Your task to perform on an android device: open app "Walmart Shopping & Grocery" (install if not already installed) Image 0: 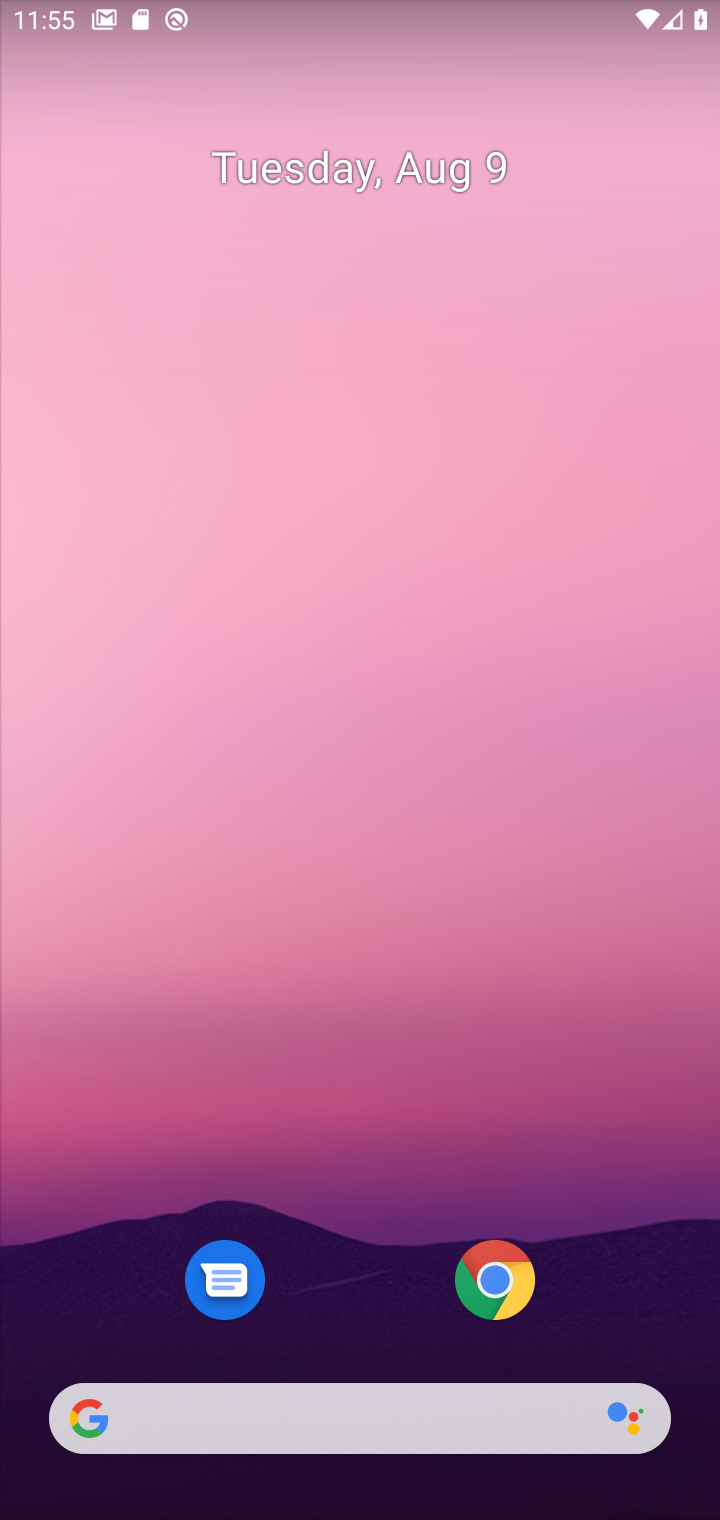
Step 0: drag from (362, 1203) to (383, 24)
Your task to perform on an android device: open app "Walmart Shopping & Grocery" (install if not already installed) Image 1: 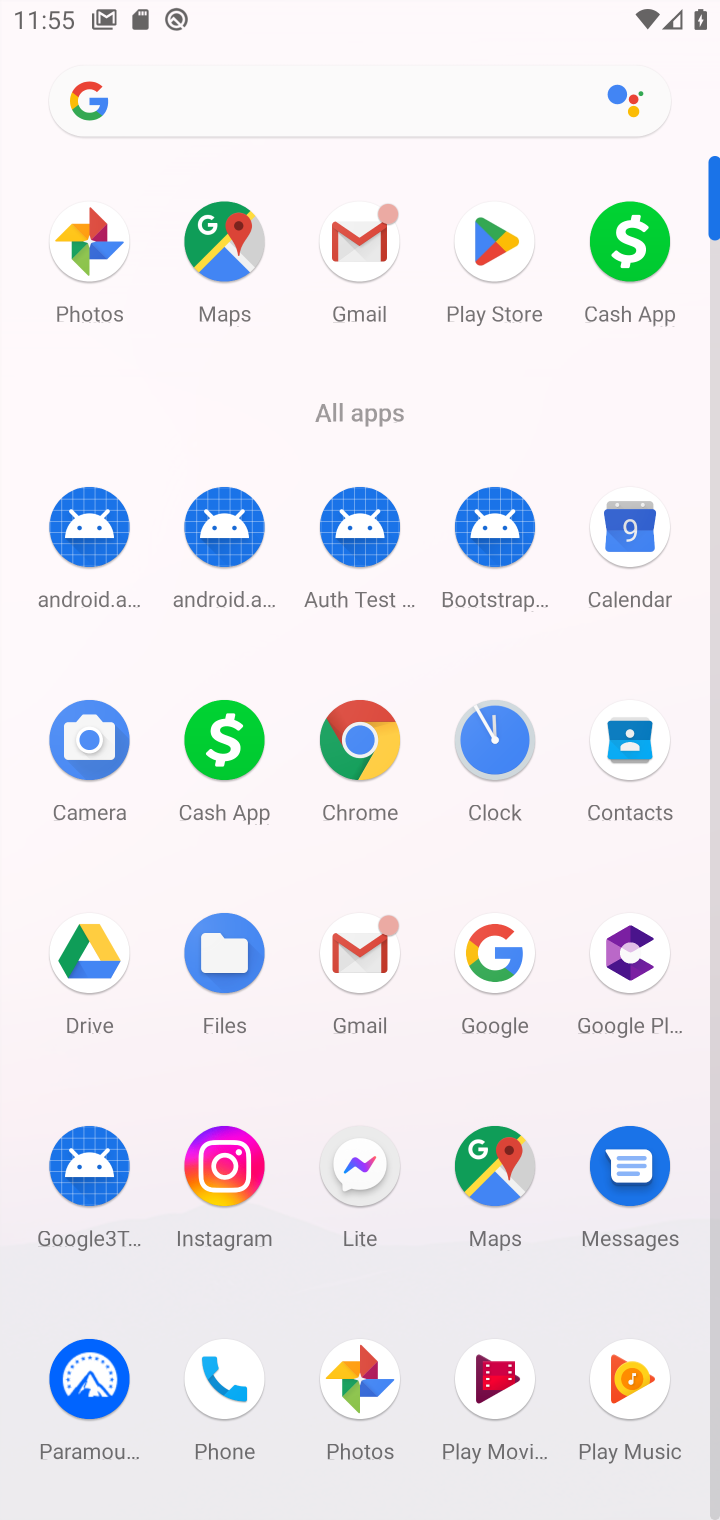
Step 1: click (487, 247)
Your task to perform on an android device: open app "Walmart Shopping & Grocery" (install if not already installed) Image 2: 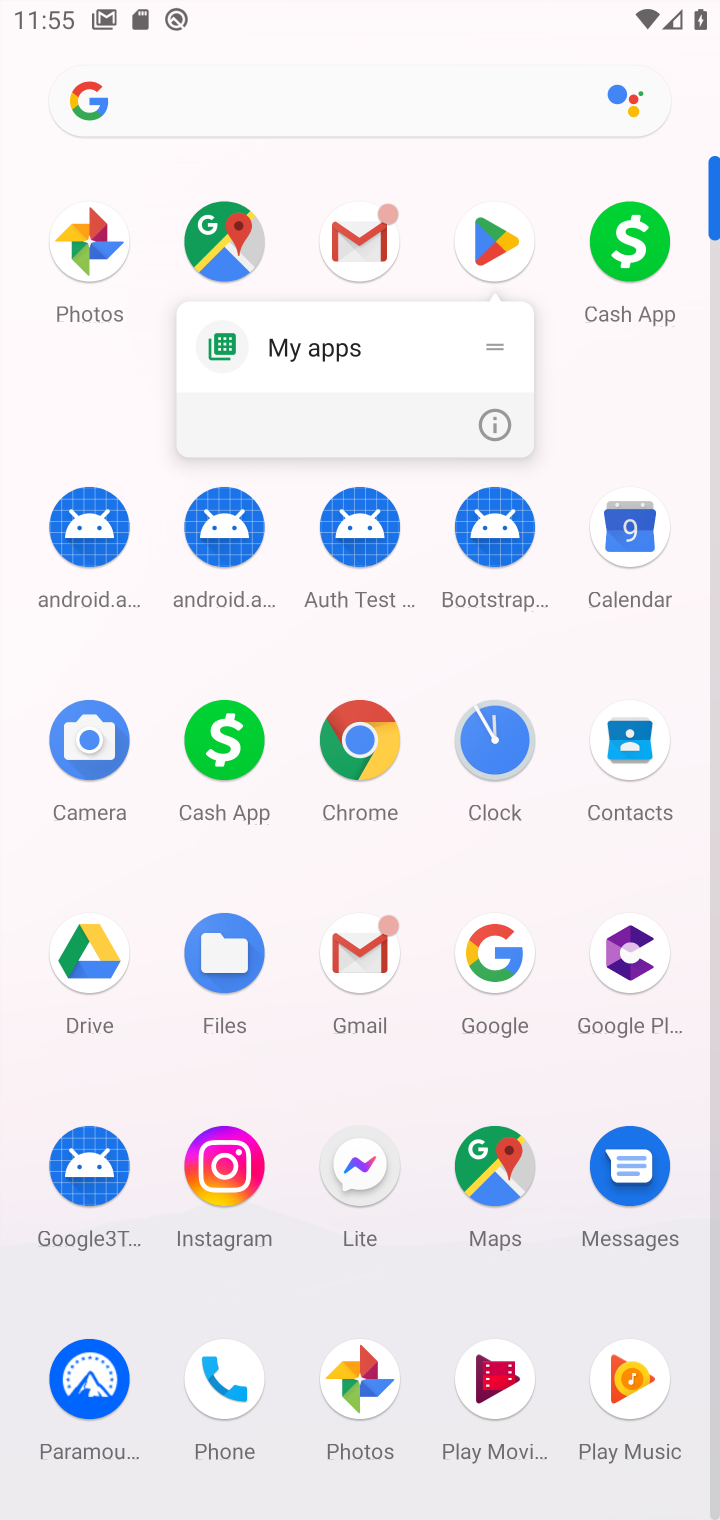
Step 2: click (493, 262)
Your task to perform on an android device: open app "Walmart Shopping & Grocery" (install if not already installed) Image 3: 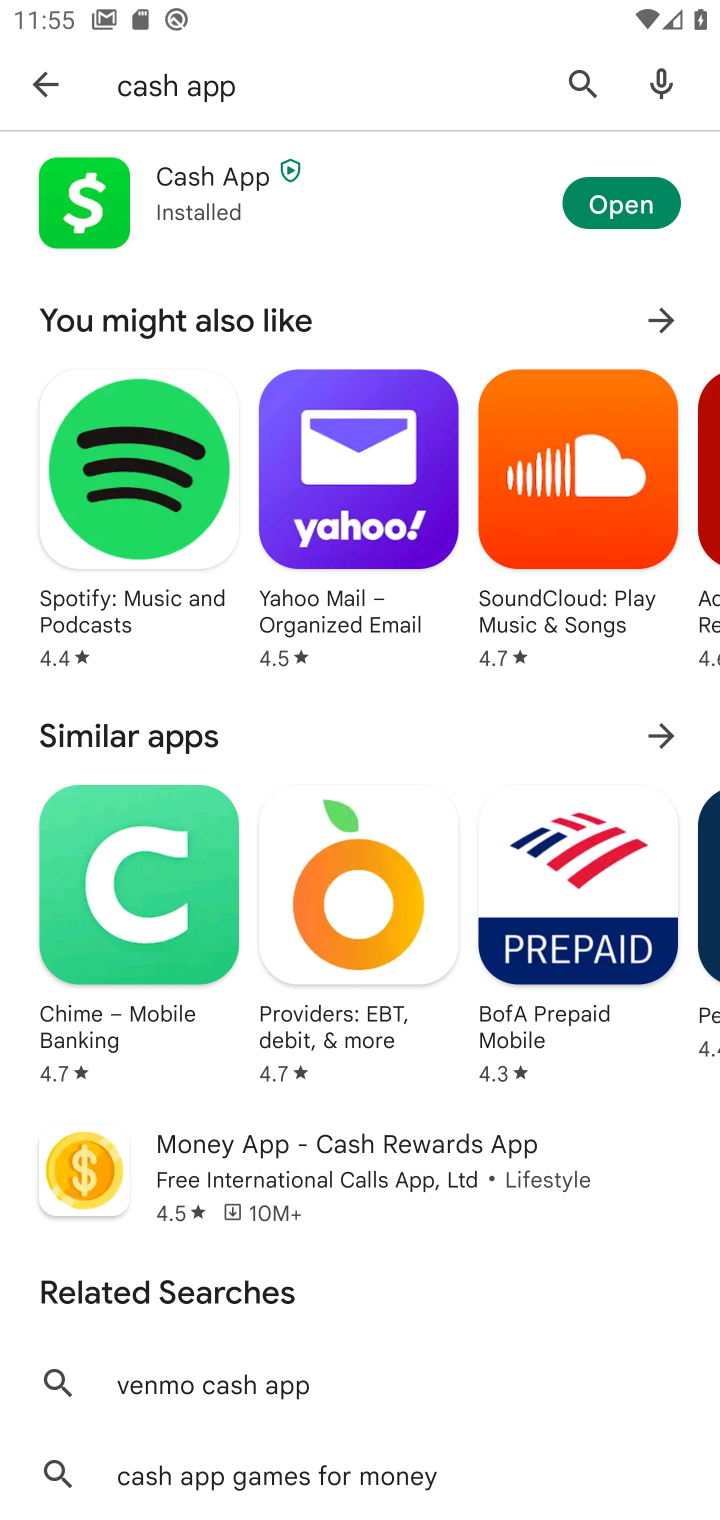
Step 3: click (445, 80)
Your task to perform on an android device: open app "Walmart Shopping & Grocery" (install if not already installed) Image 4: 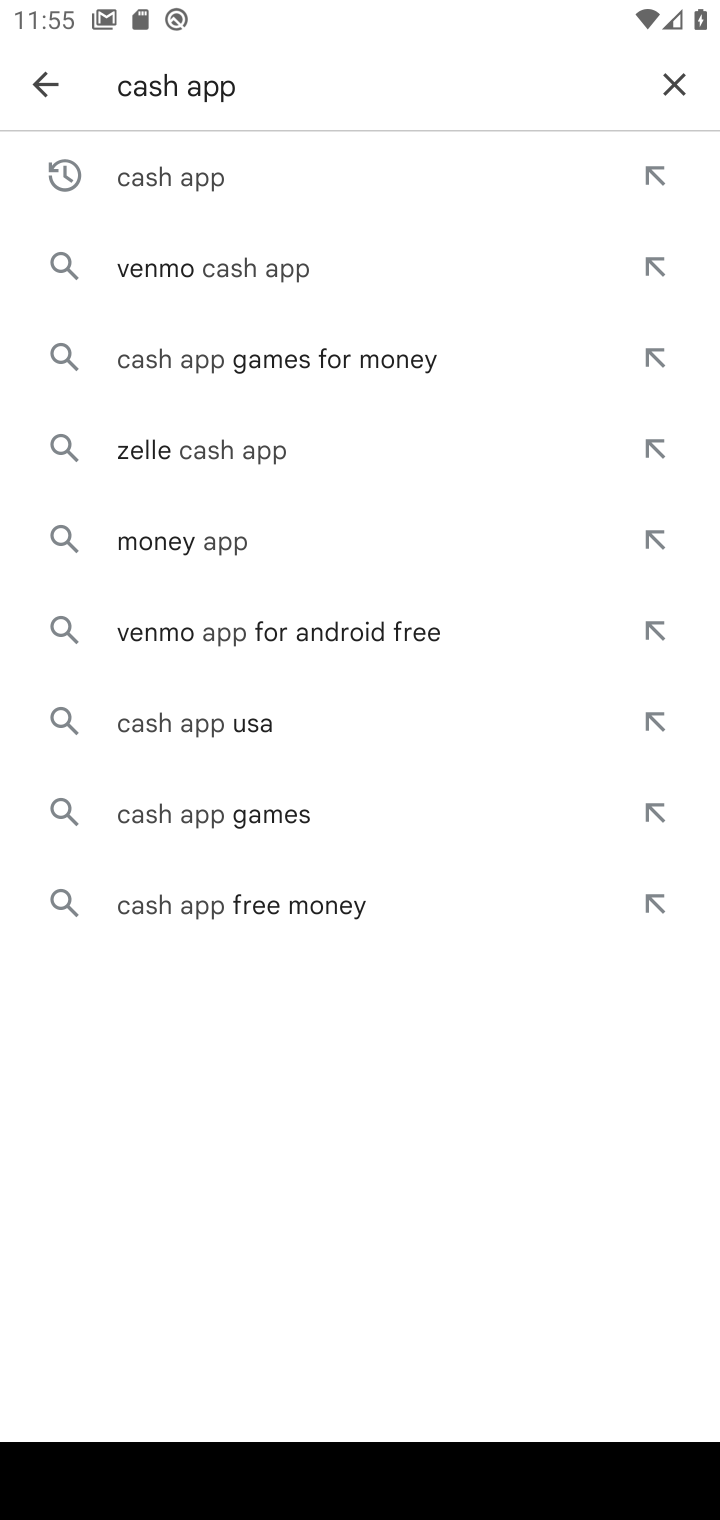
Step 4: click (667, 76)
Your task to perform on an android device: open app "Walmart Shopping & Grocery" (install if not already installed) Image 5: 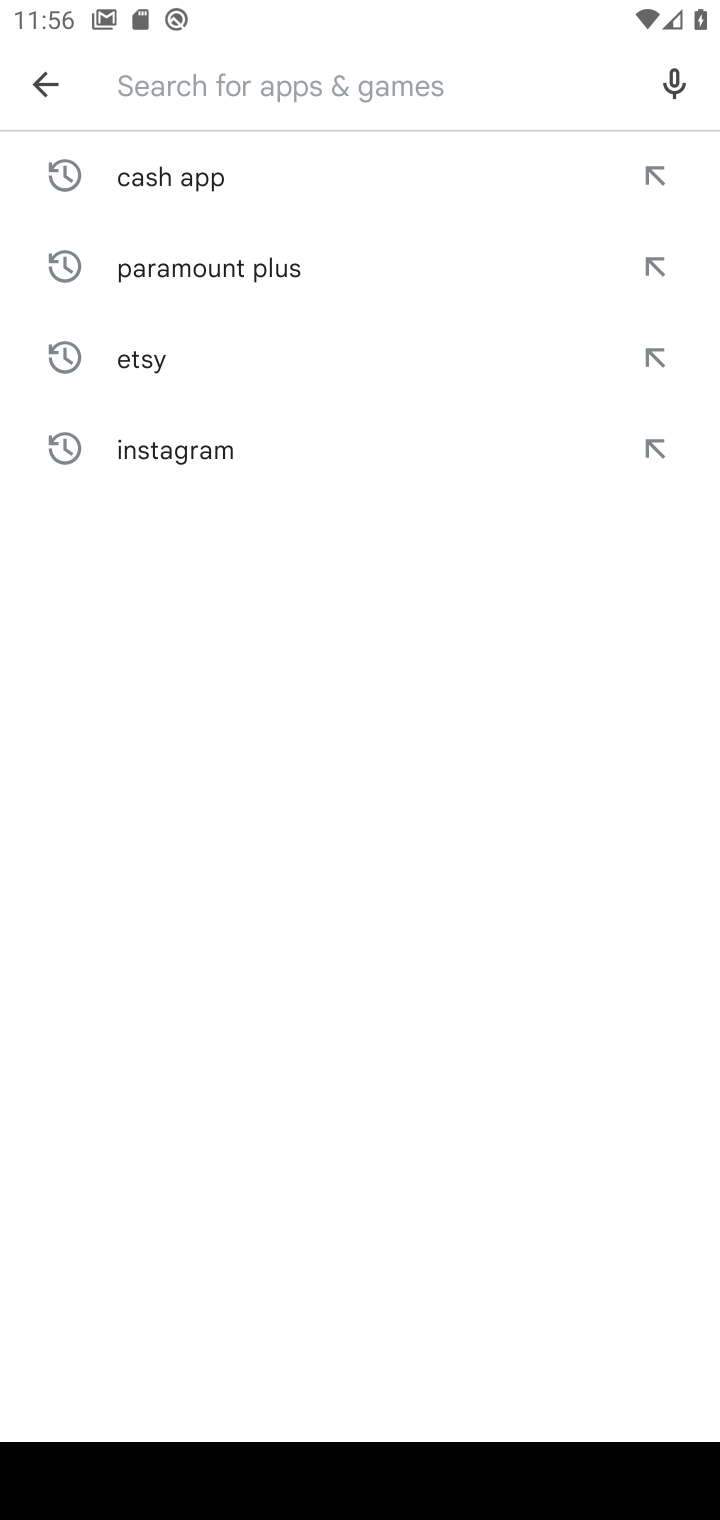
Step 5: click (204, 103)
Your task to perform on an android device: open app "Walmart Shopping & Grocery" (install if not already installed) Image 6: 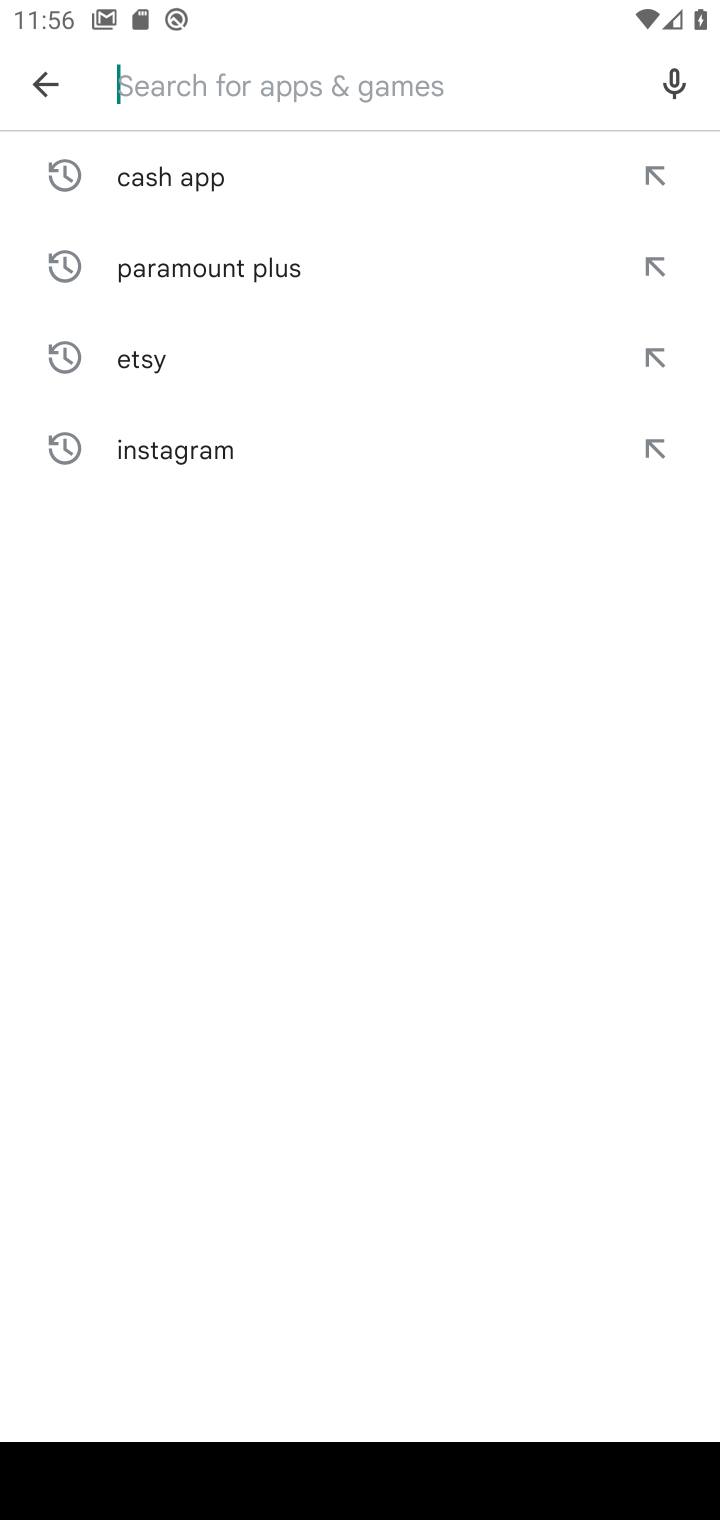
Step 6: type "Walmart Shopping & Grocery"
Your task to perform on an android device: open app "Walmart Shopping & Grocery" (install if not already installed) Image 7: 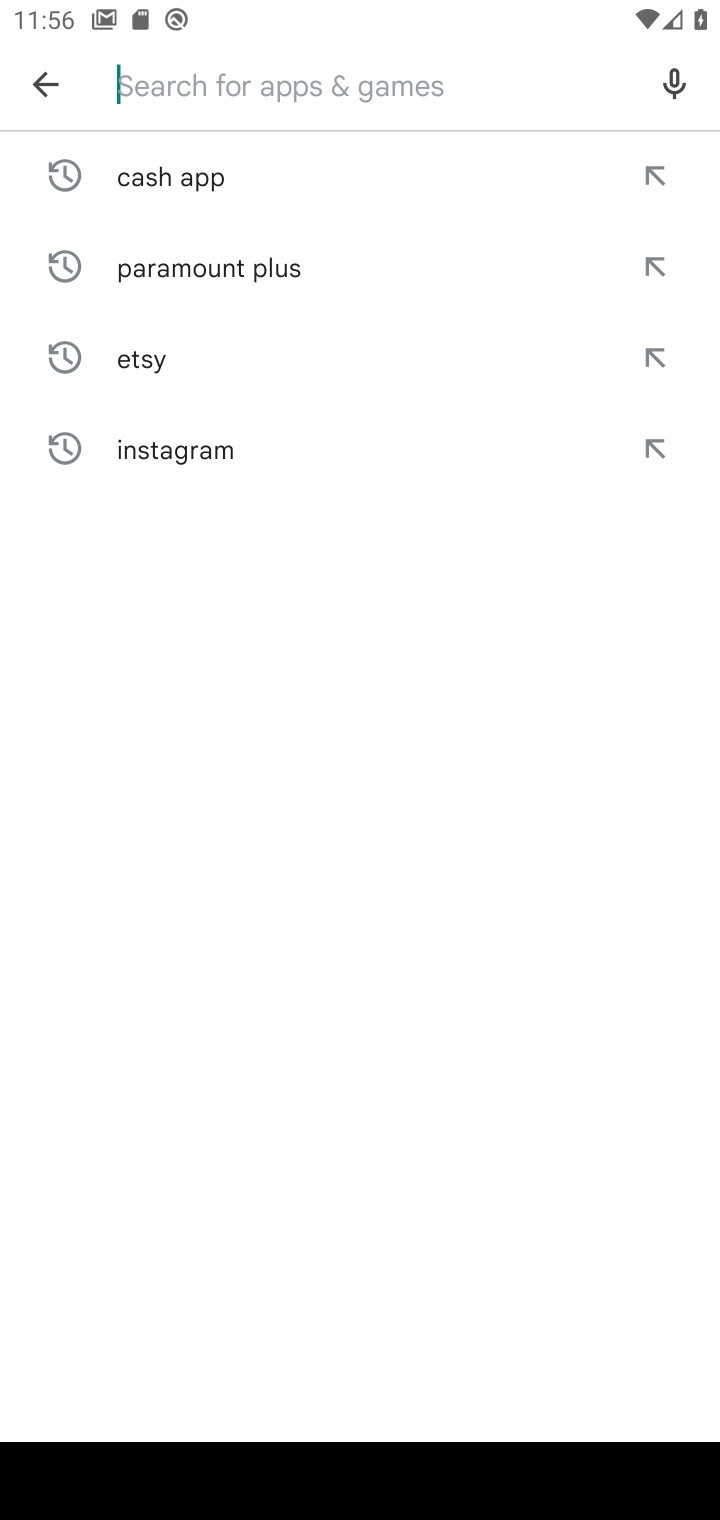
Step 7: click (357, 730)
Your task to perform on an android device: open app "Walmart Shopping & Grocery" (install if not already installed) Image 8: 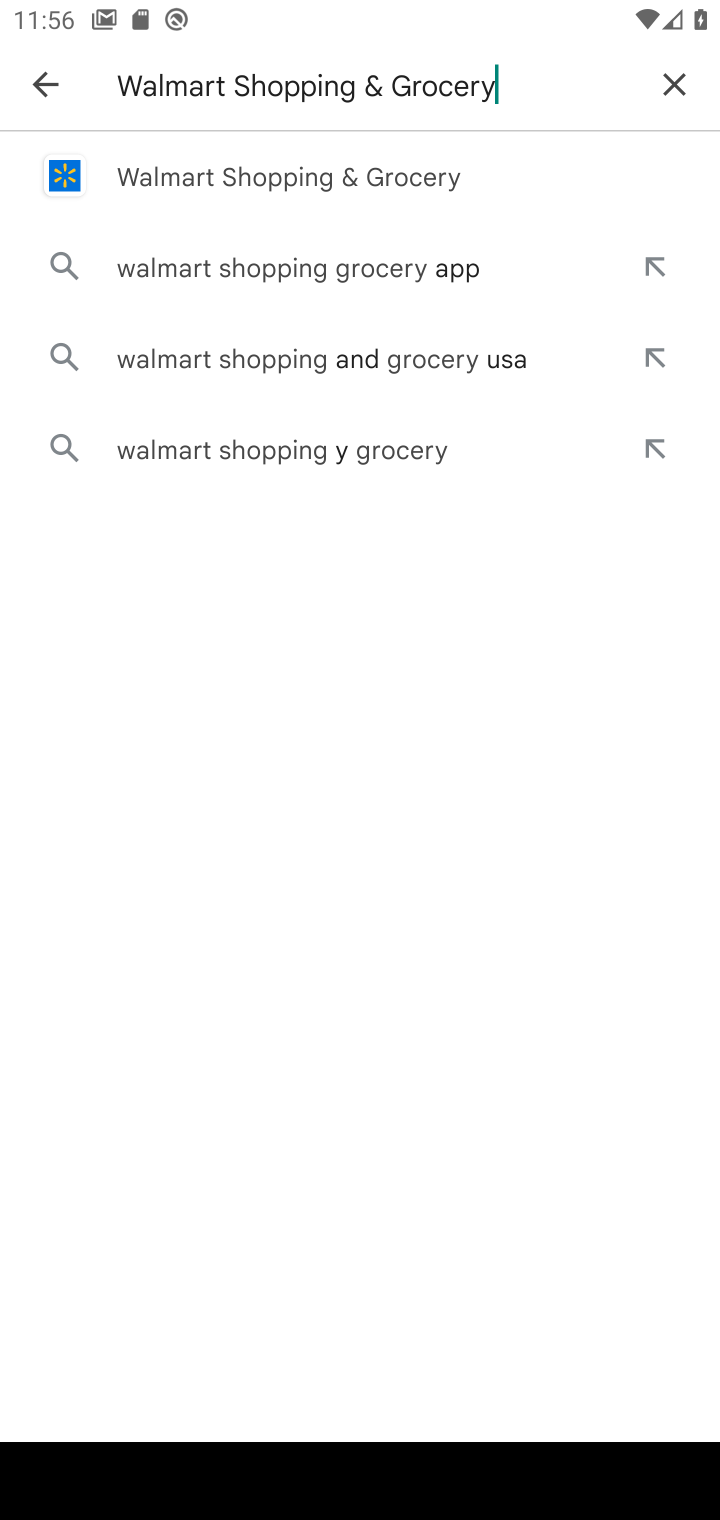
Step 8: click (298, 170)
Your task to perform on an android device: open app "Walmart Shopping & Grocery" (install if not already installed) Image 9: 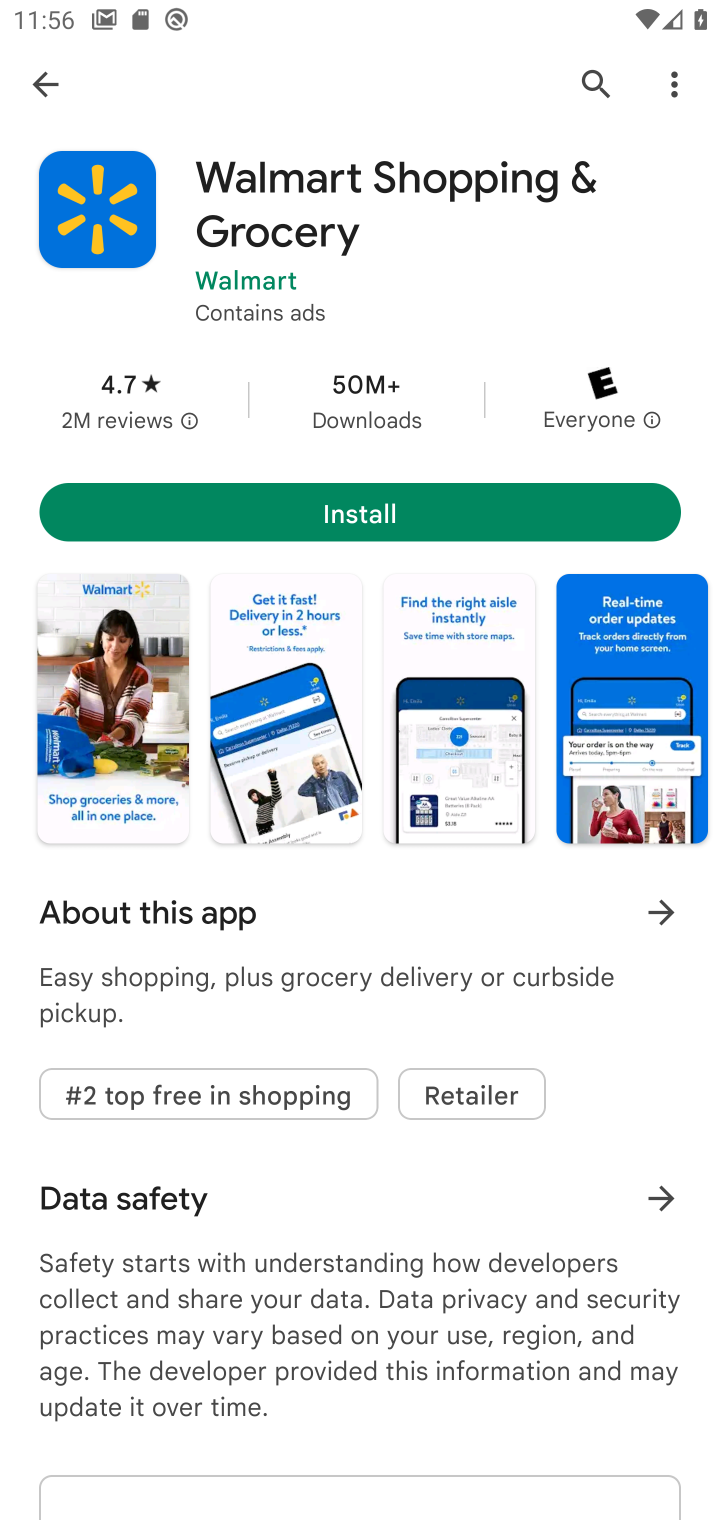
Step 9: click (368, 530)
Your task to perform on an android device: open app "Walmart Shopping & Grocery" (install if not already installed) Image 10: 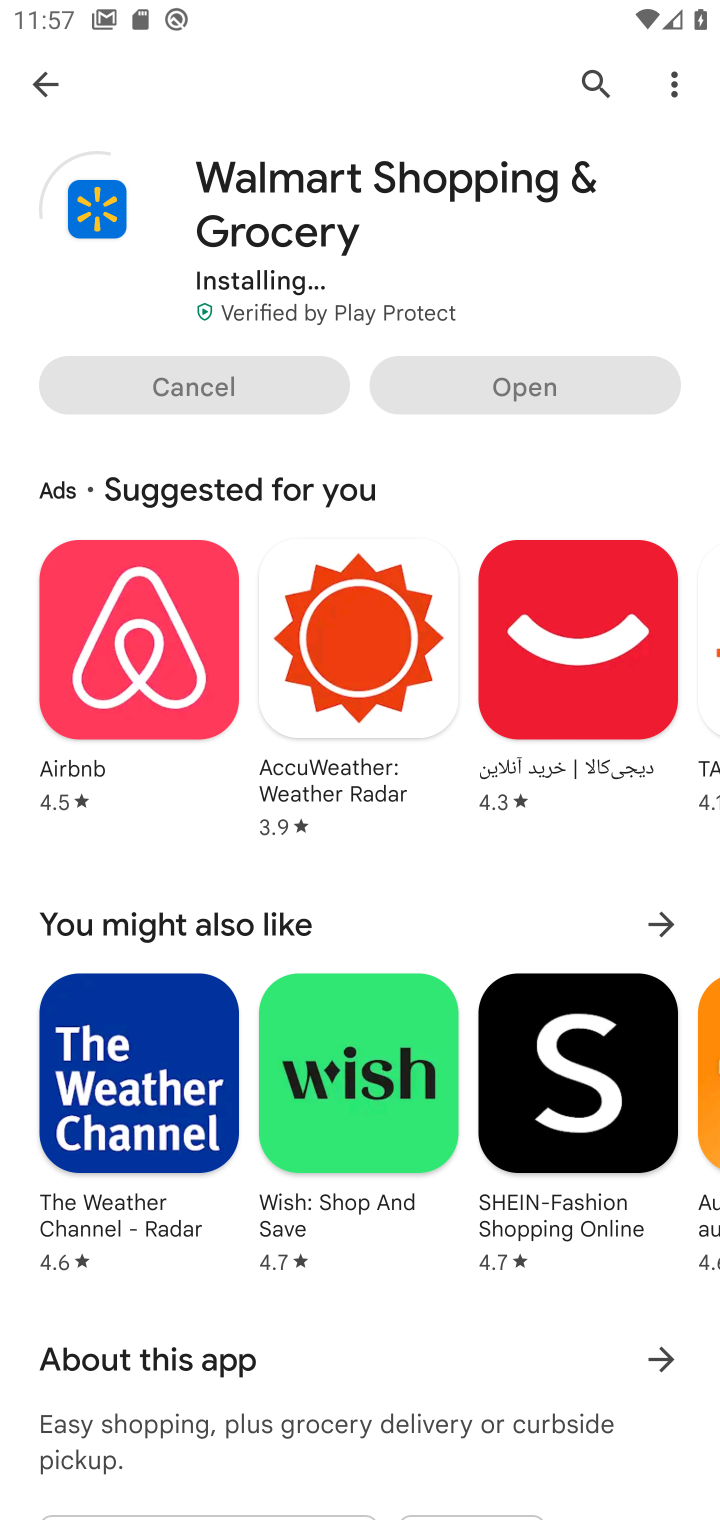
Step 10: press back button
Your task to perform on an android device: open app "Walmart Shopping & Grocery" (install if not already installed) Image 11: 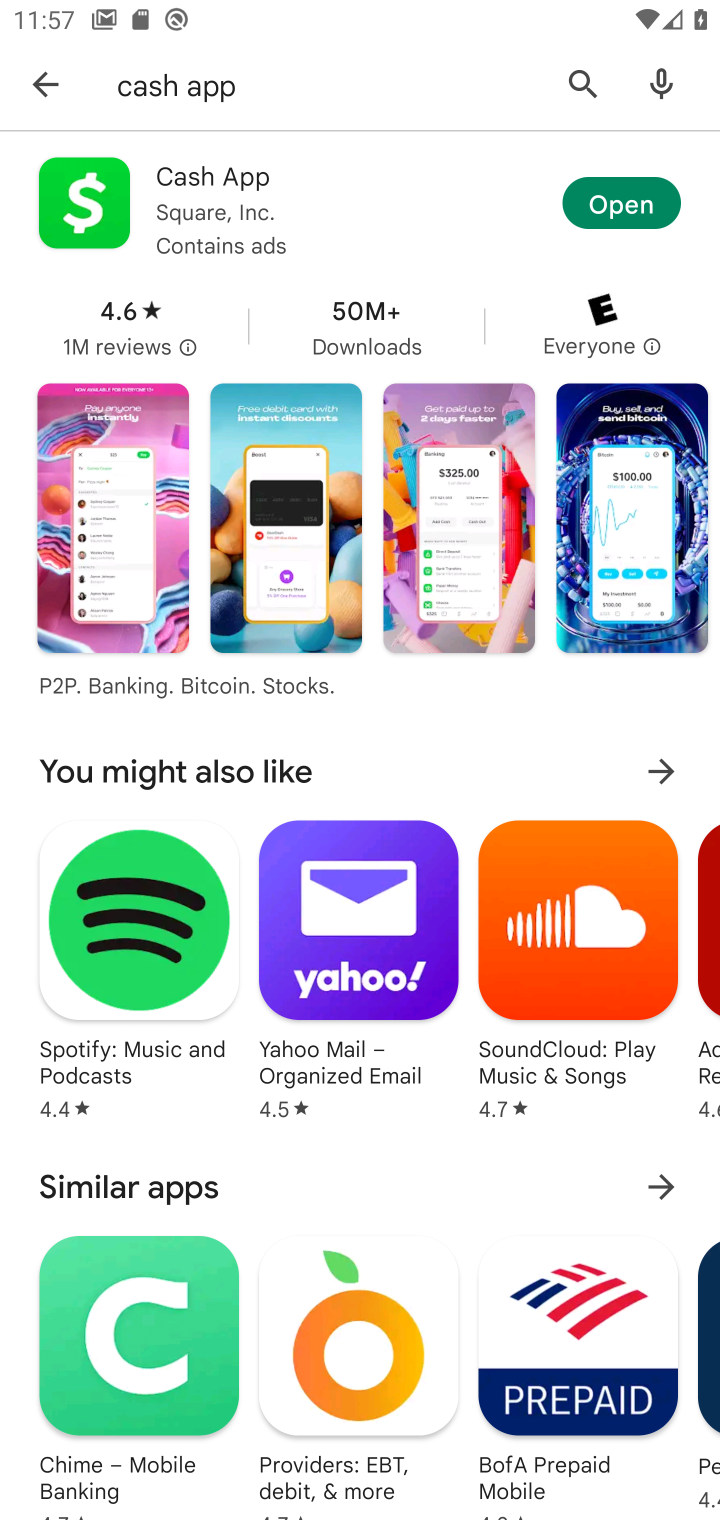
Step 11: click (599, 94)
Your task to perform on an android device: open app "Walmart Shopping & Grocery" (install if not already installed) Image 12: 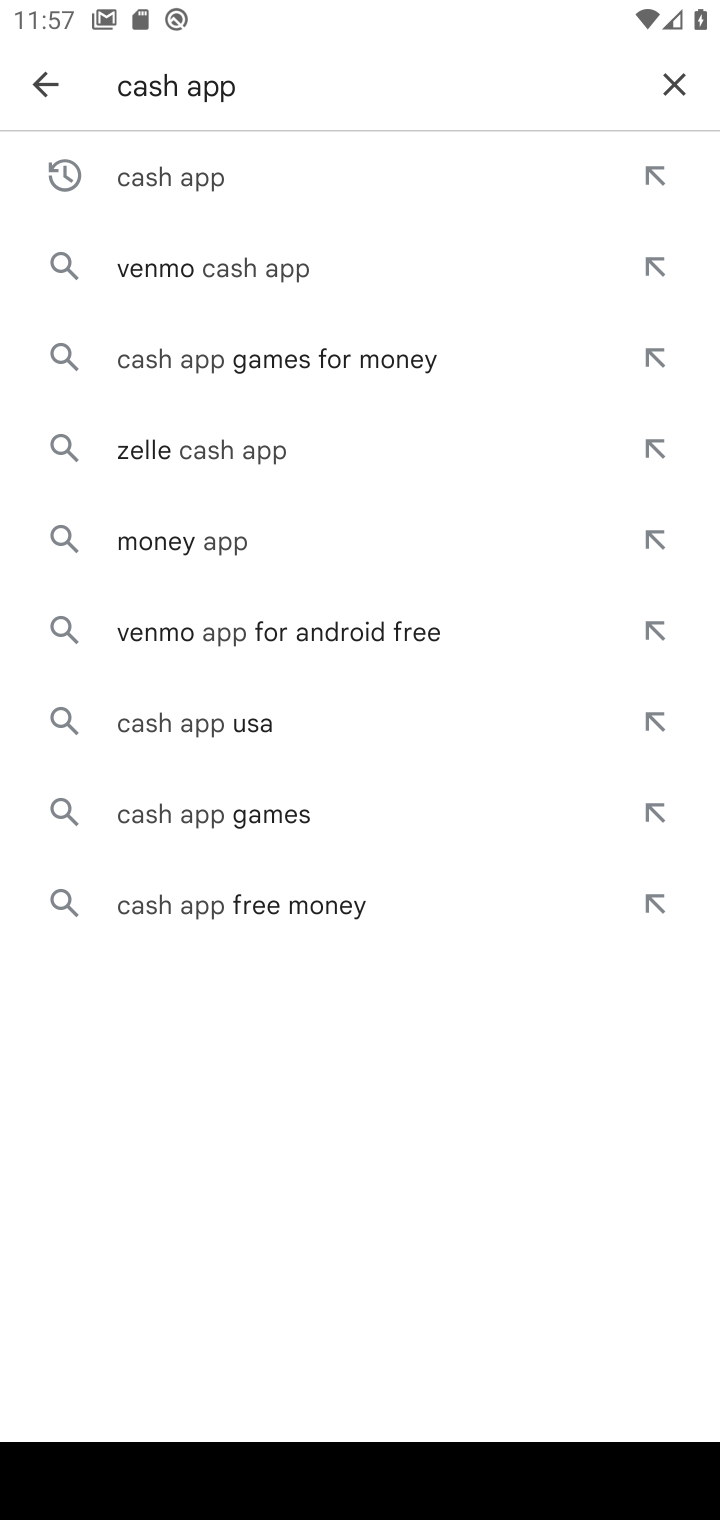
Step 12: click (675, 83)
Your task to perform on an android device: open app "Walmart Shopping & Grocery" (install if not already installed) Image 13: 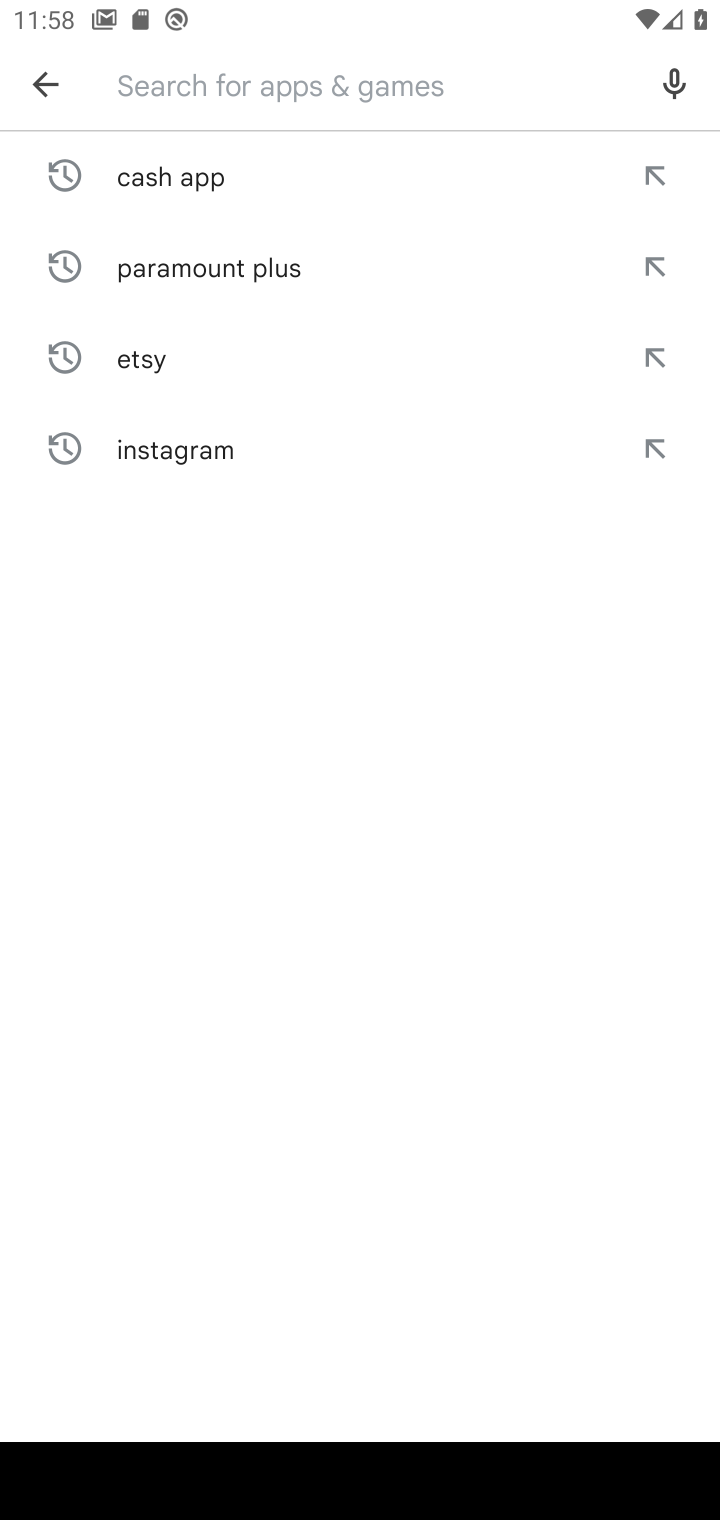
Step 13: click (303, 67)
Your task to perform on an android device: open app "Walmart Shopping & Grocery" (install if not already installed) Image 14: 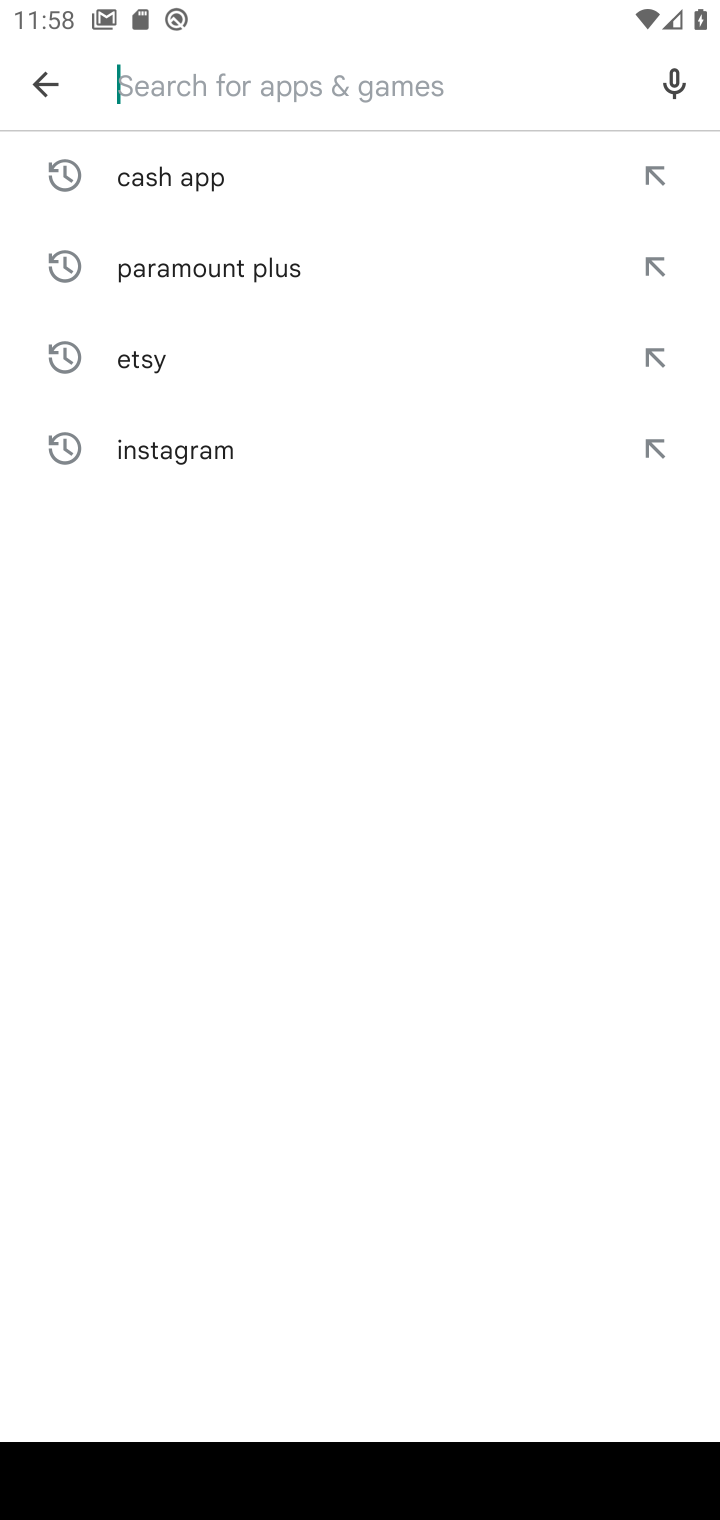
Step 14: type "Walmart Shopping & Grocery"
Your task to perform on an android device: open app "Walmart Shopping & Grocery" (install if not already installed) Image 15: 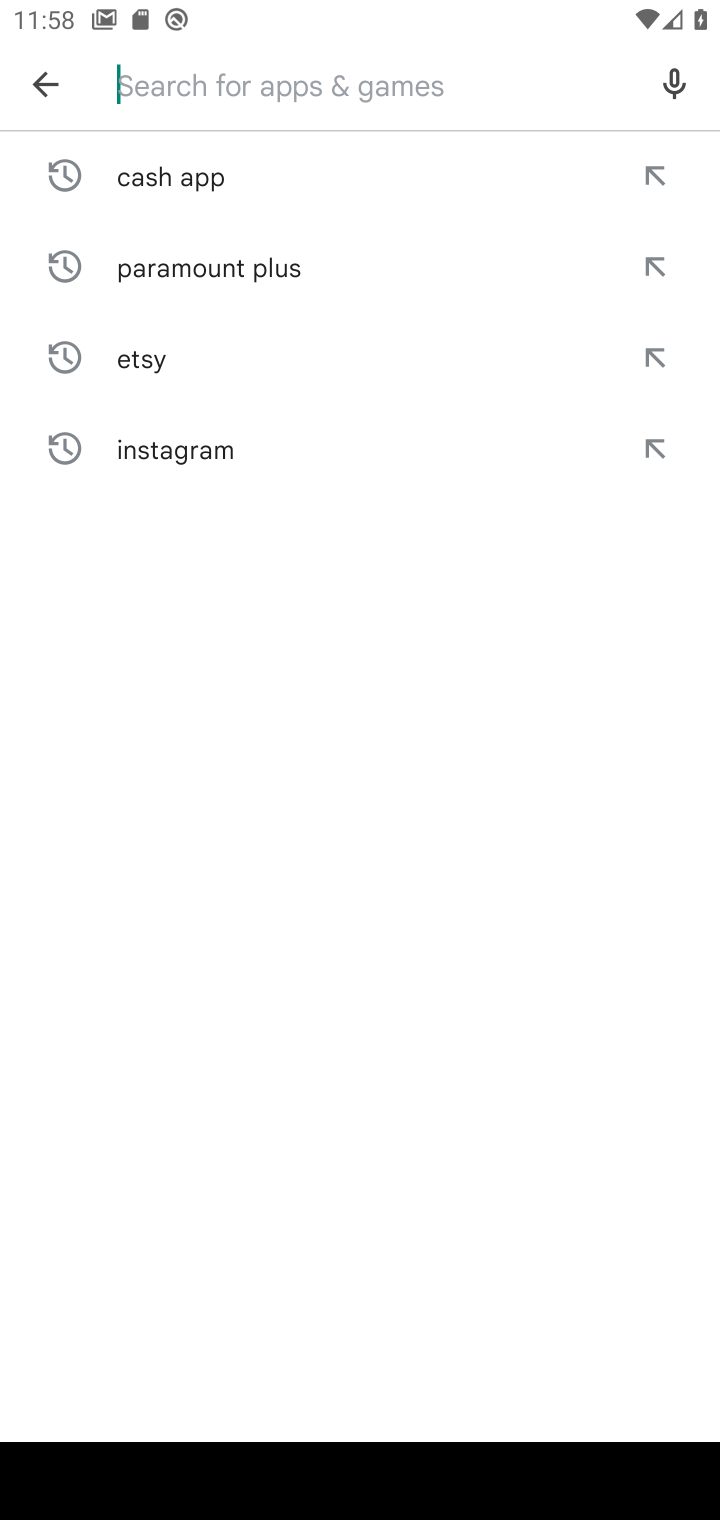
Step 15: click (574, 996)
Your task to perform on an android device: open app "Walmart Shopping & Grocery" (install if not already installed) Image 16: 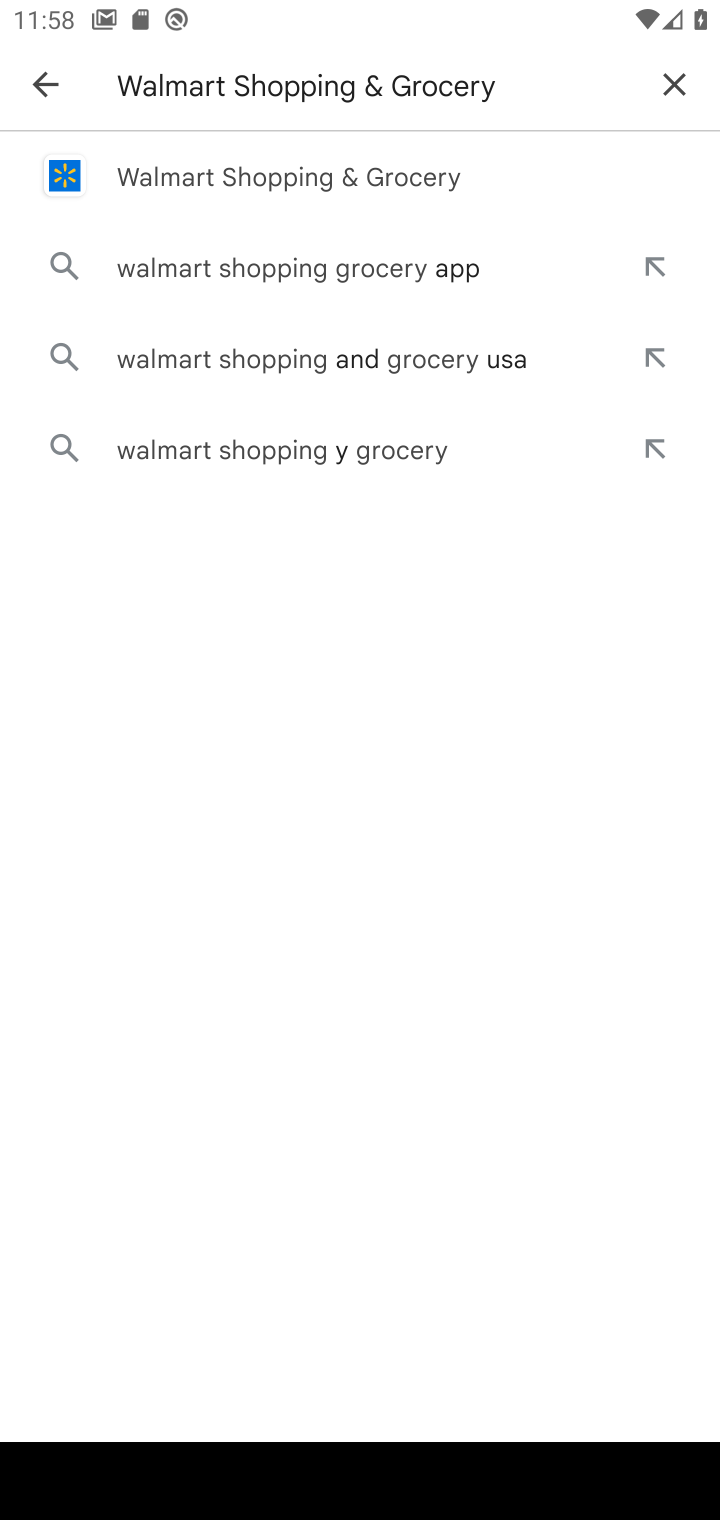
Step 16: click (332, 151)
Your task to perform on an android device: open app "Walmart Shopping & Grocery" (install if not already installed) Image 17: 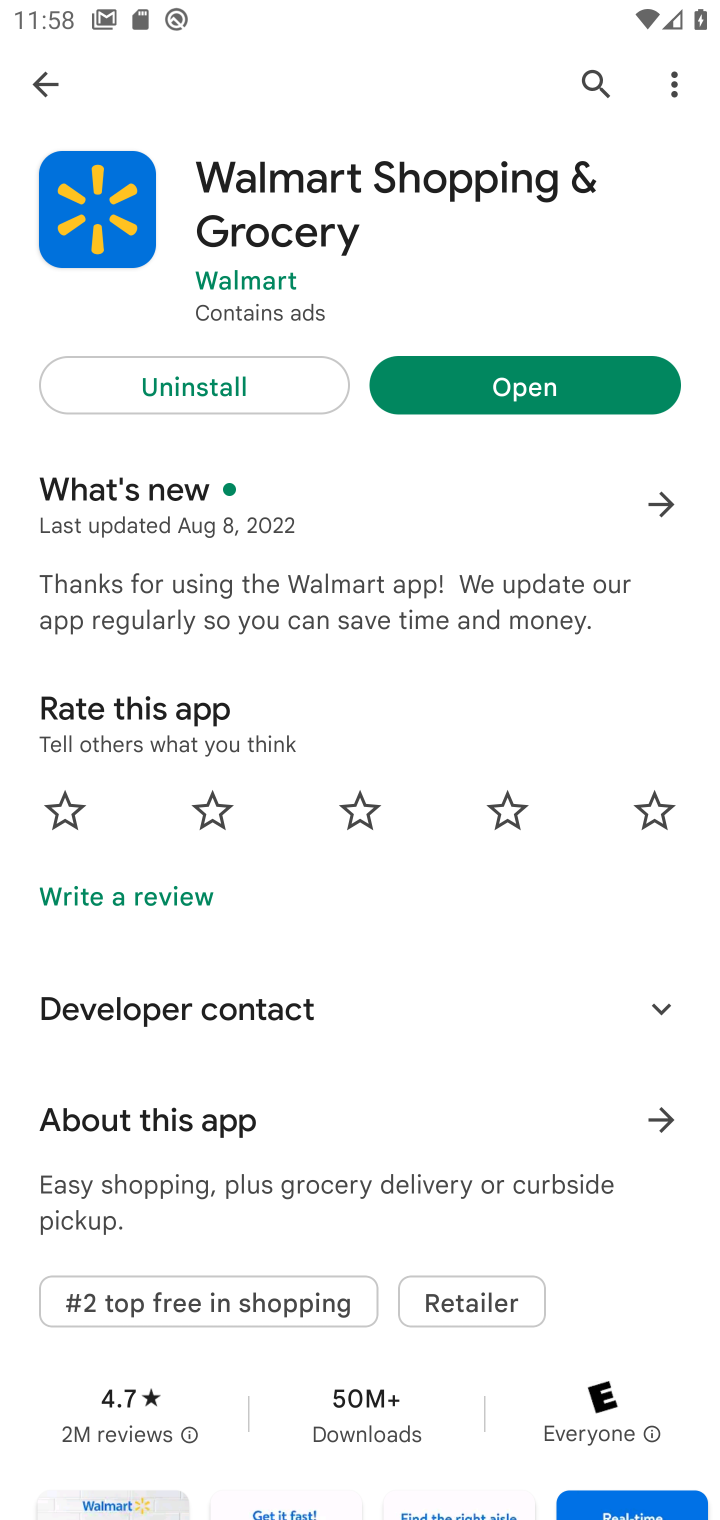
Step 17: click (471, 403)
Your task to perform on an android device: open app "Walmart Shopping & Grocery" (install if not already installed) Image 18: 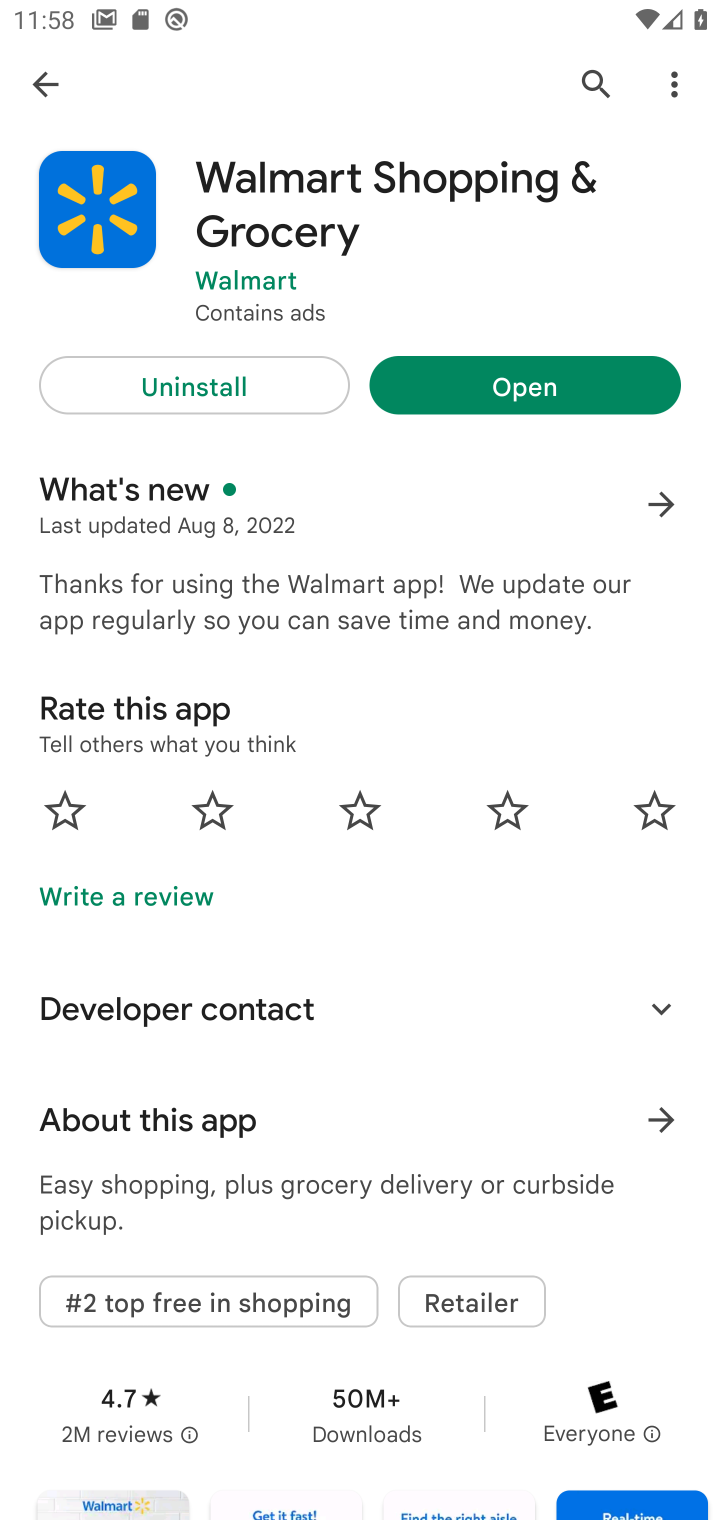
Step 18: task complete